Your task to perform on an android device: change notification settings in the gmail app Image 0: 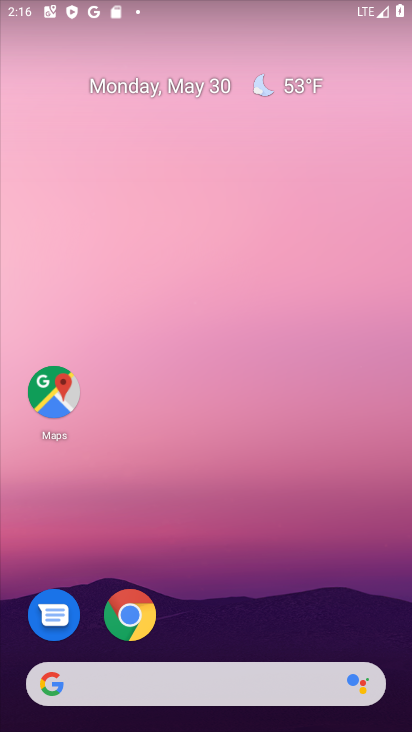
Step 0: drag from (229, 624) to (182, 41)
Your task to perform on an android device: change notification settings in the gmail app Image 1: 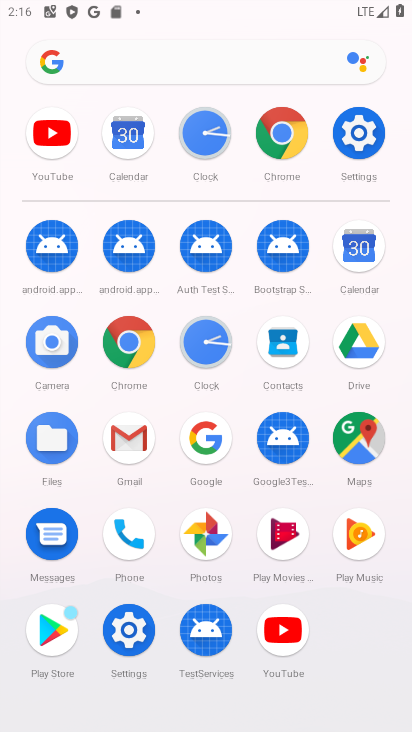
Step 1: click (132, 447)
Your task to perform on an android device: change notification settings in the gmail app Image 2: 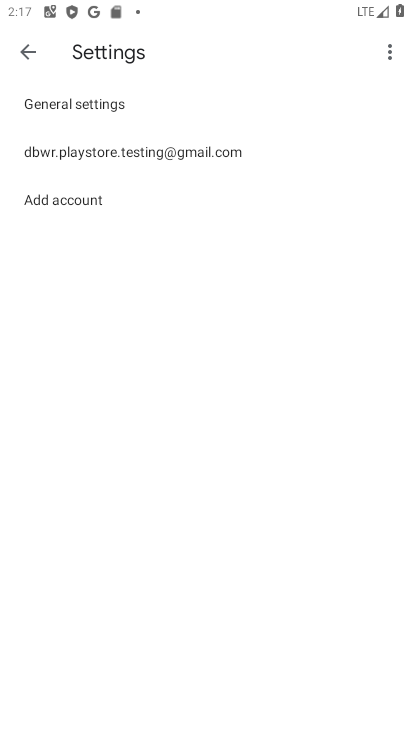
Step 2: click (51, 147)
Your task to perform on an android device: change notification settings in the gmail app Image 3: 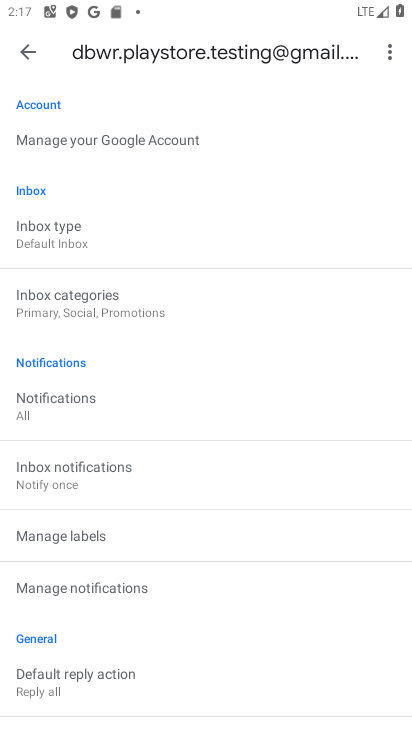
Step 3: click (103, 593)
Your task to perform on an android device: change notification settings in the gmail app Image 4: 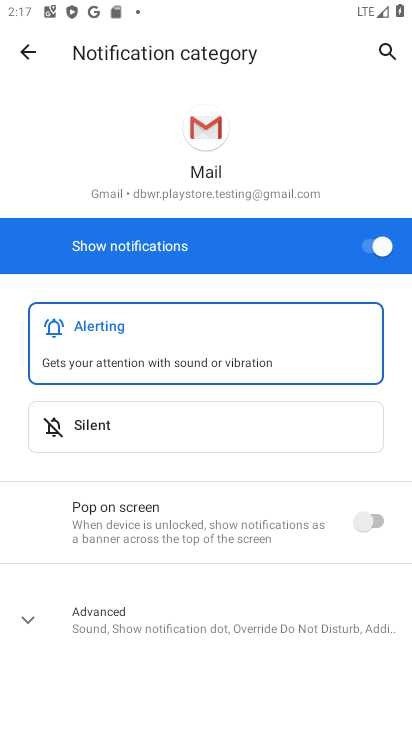
Step 4: click (370, 247)
Your task to perform on an android device: change notification settings in the gmail app Image 5: 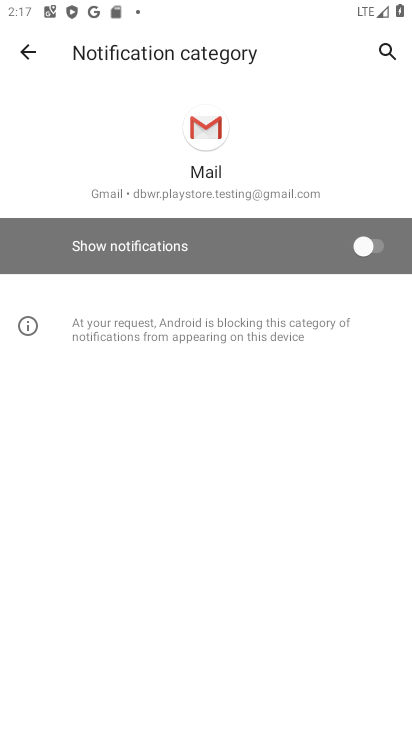
Step 5: task complete